Your task to perform on an android device: set the stopwatch Image 0: 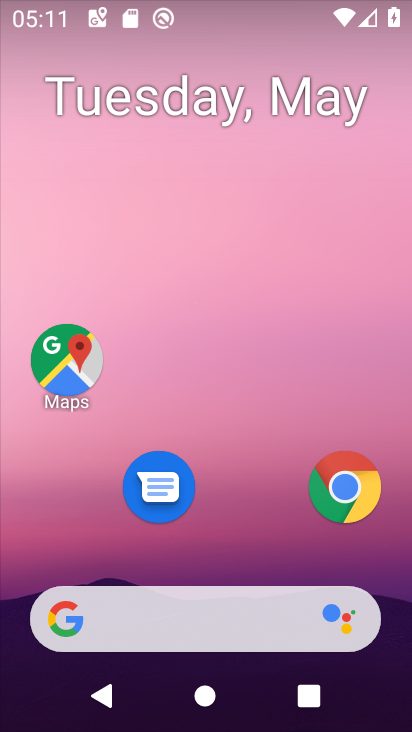
Step 0: drag from (251, 594) to (252, 171)
Your task to perform on an android device: set the stopwatch Image 1: 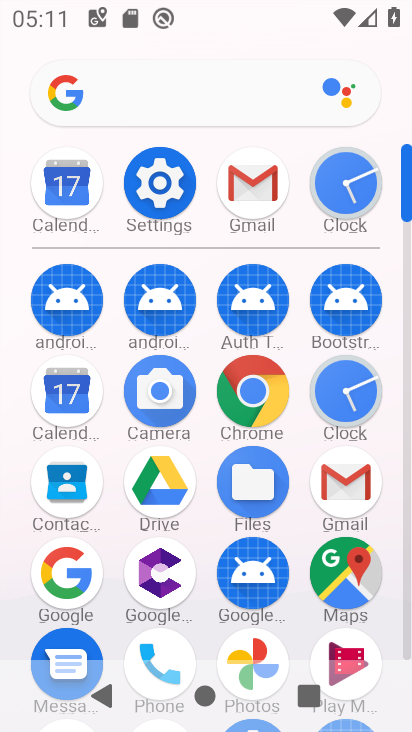
Step 1: click (322, 175)
Your task to perform on an android device: set the stopwatch Image 2: 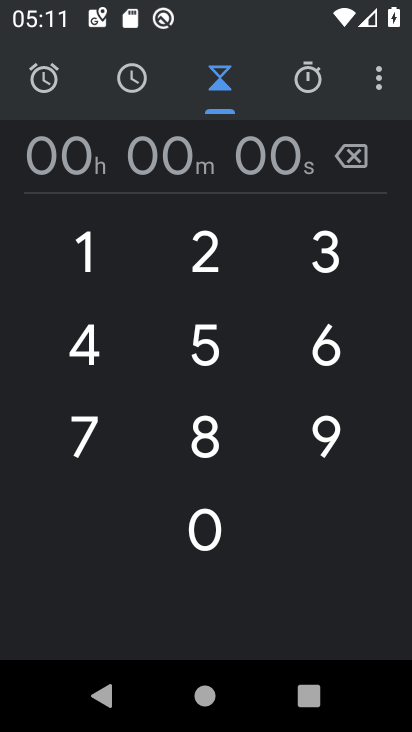
Step 2: click (294, 91)
Your task to perform on an android device: set the stopwatch Image 3: 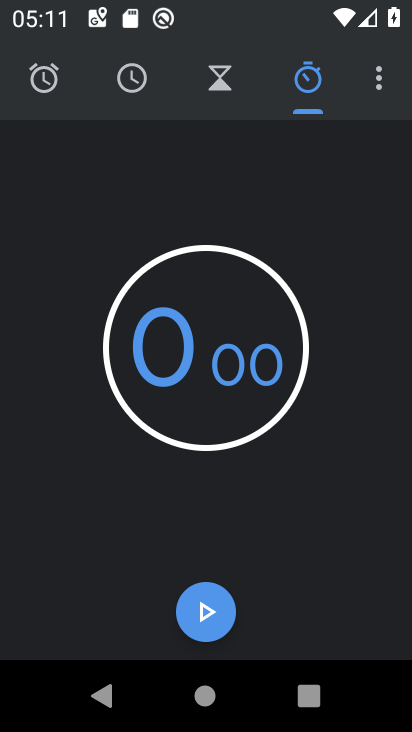
Step 3: task complete